Your task to perform on an android device: Open wifi settings Image 0: 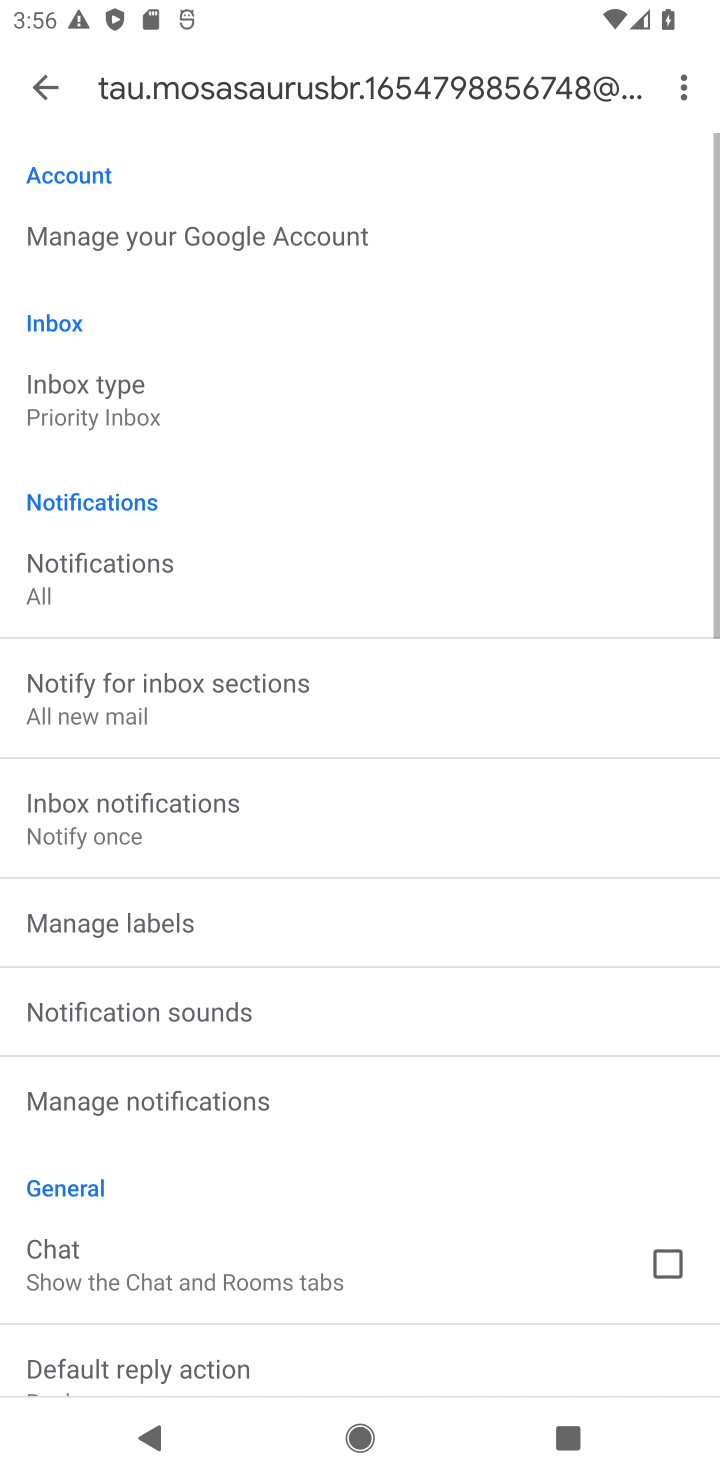
Step 0: press back button
Your task to perform on an android device: Open wifi settings Image 1: 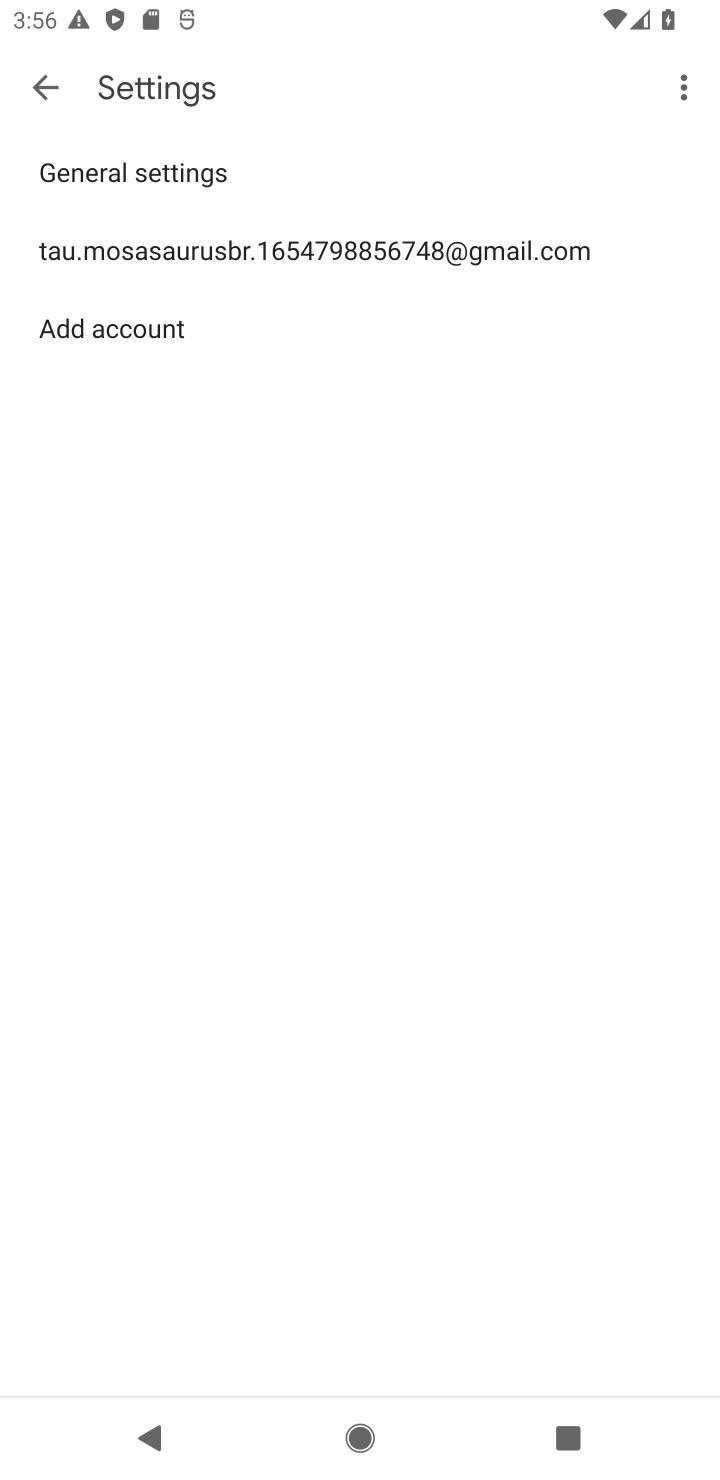
Step 1: press back button
Your task to perform on an android device: Open wifi settings Image 2: 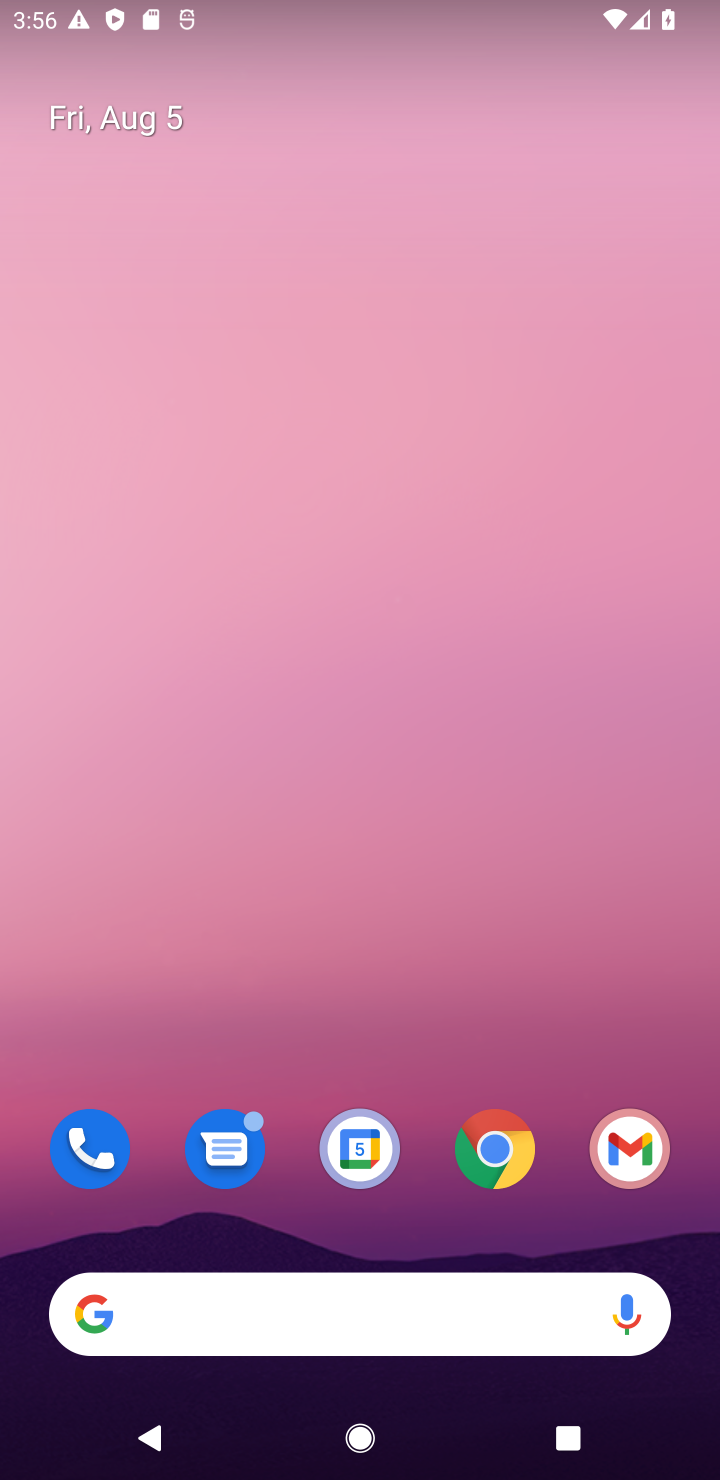
Step 2: drag from (354, 39) to (371, 1257)
Your task to perform on an android device: Open wifi settings Image 3: 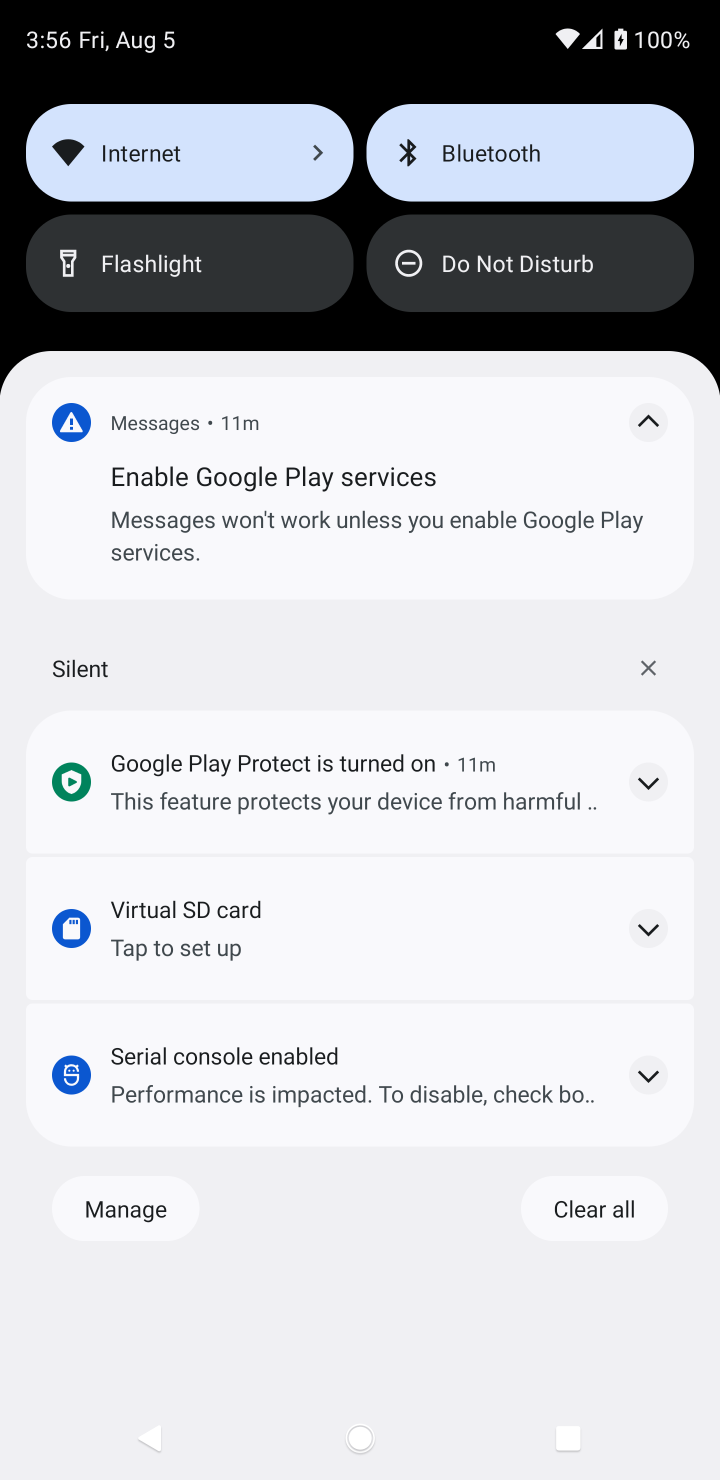
Step 3: click (105, 163)
Your task to perform on an android device: Open wifi settings Image 4: 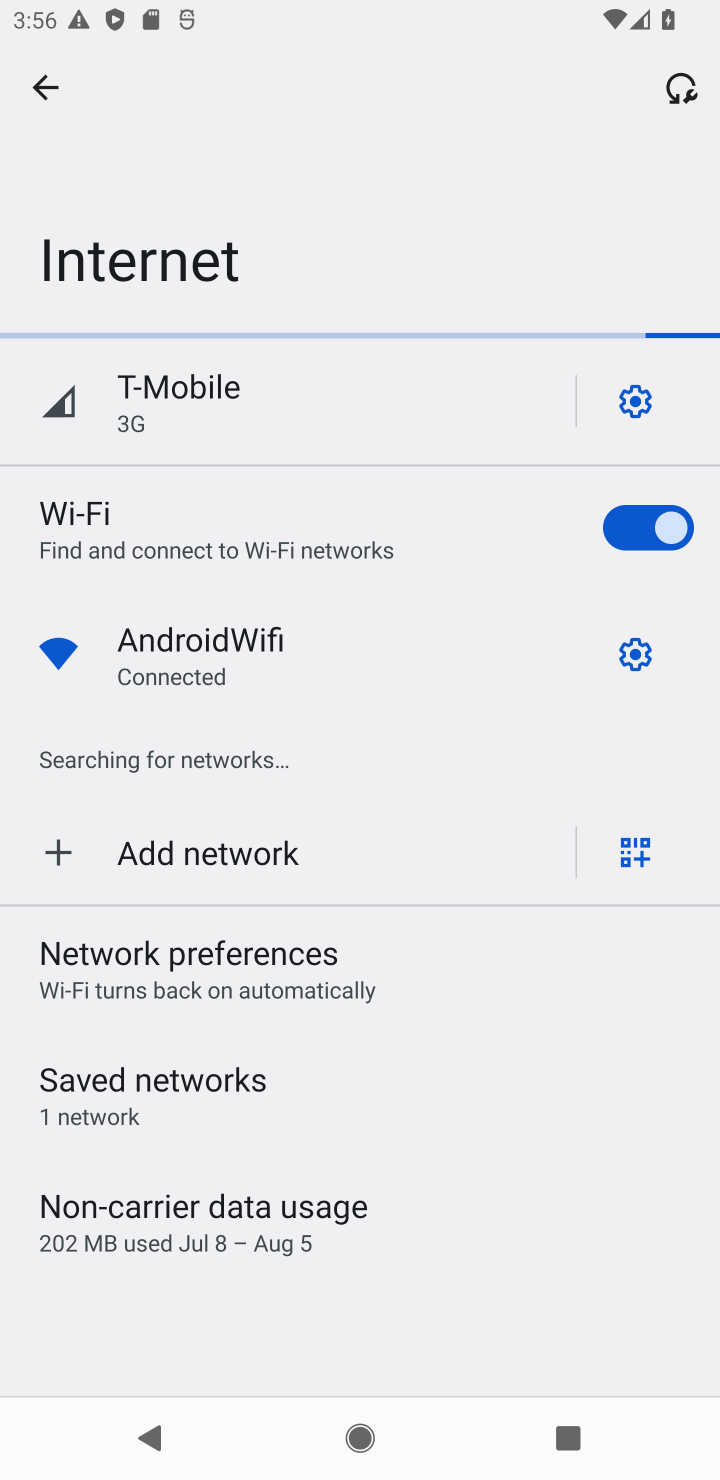
Step 4: task complete